Your task to perform on an android device: Go to Reddit.com Image 0: 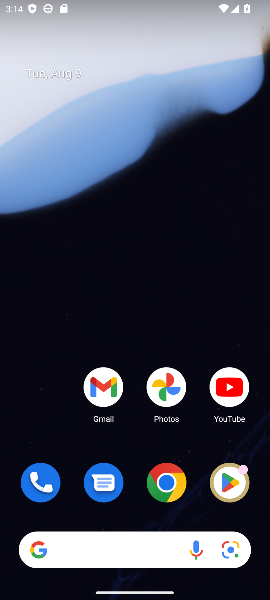
Step 0: click (165, 483)
Your task to perform on an android device: Go to Reddit.com Image 1: 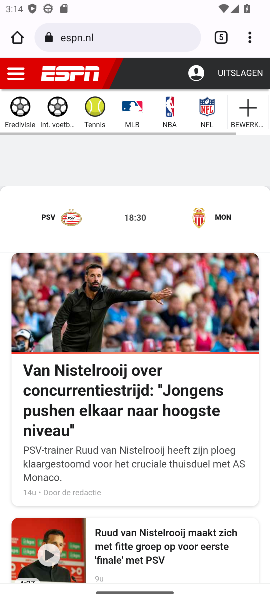
Step 1: click (222, 38)
Your task to perform on an android device: Go to Reddit.com Image 2: 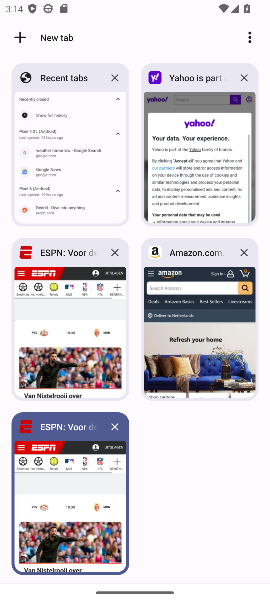
Step 2: click (17, 39)
Your task to perform on an android device: Go to Reddit.com Image 3: 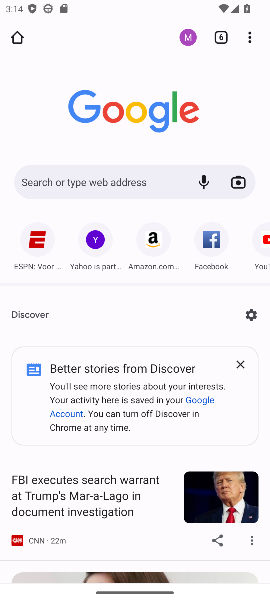
Step 3: click (80, 188)
Your task to perform on an android device: Go to Reddit.com Image 4: 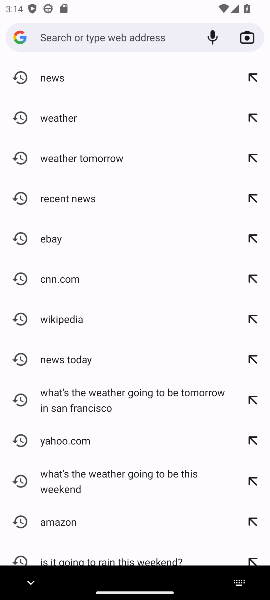
Step 4: type "Reddit.com"
Your task to perform on an android device: Go to Reddit.com Image 5: 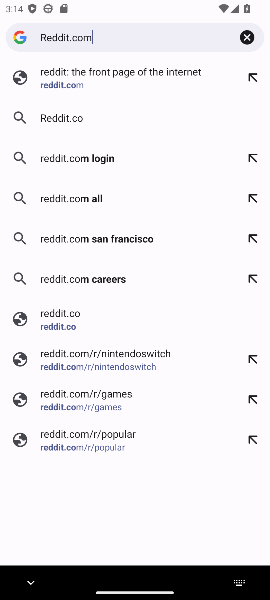
Step 5: type ""
Your task to perform on an android device: Go to Reddit.com Image 6: 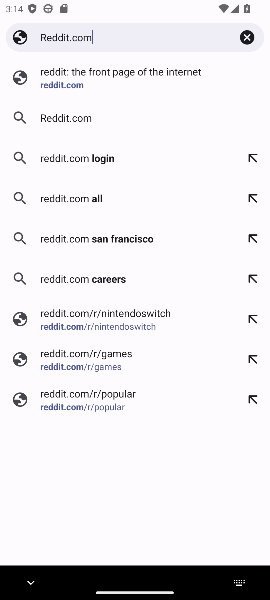
Step 6: click (107, 90)
Your task to perform on an android device: Go to Reddit.com Image 7: 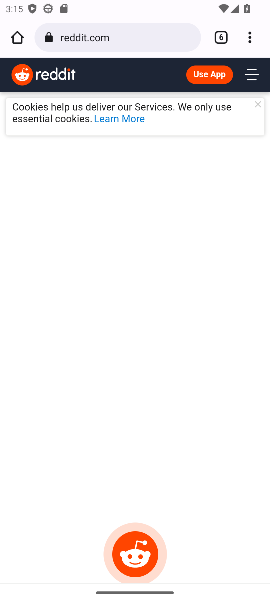
Step 7: task complete